Your task to perform on an android device: move a message to another label in the gmail app Image 0: 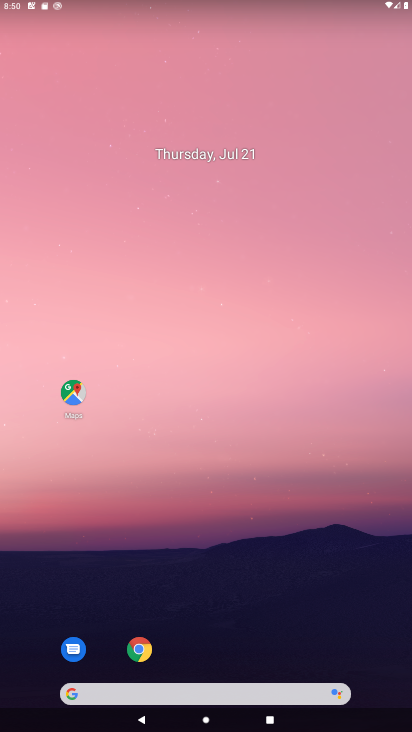
Step 0: drag from (194, 654) to (219, 47)
Your task to perform on an android device: move a message to another label in the gmail app Image 1: 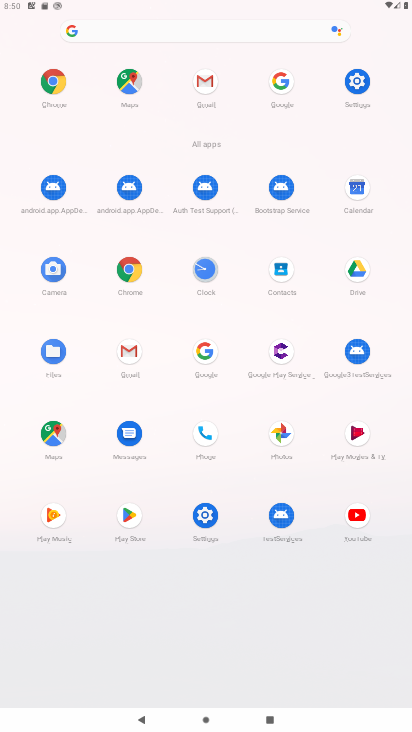
Step 1: click (200, 80)
Your task to perform on an android device: move a message to another label in the gmail app Image 2: 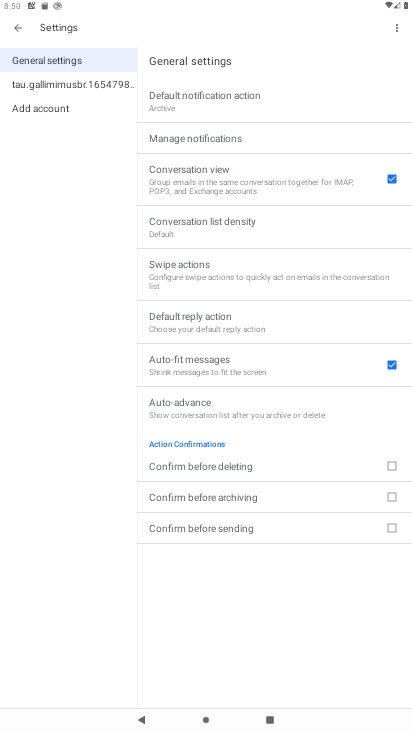
Step 2: task complete